Your task to perform on an android device: Open calendar and show me the fourth week of next month Image 0: 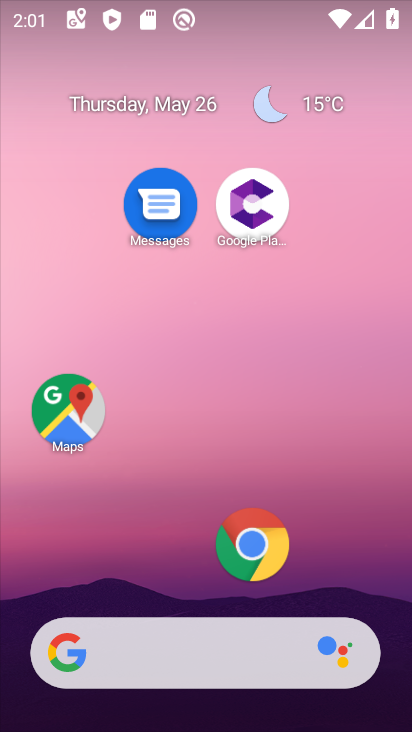
Step 0: click (119, 116)
Your task to perform on an android device: Open calendar and show me the fourth week of next month Image 1: 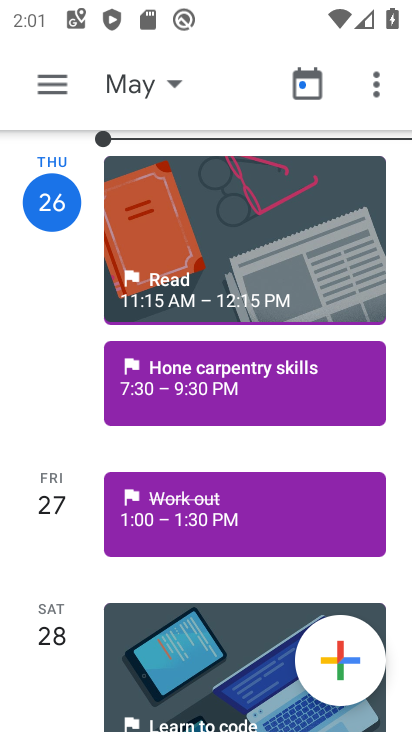
Step 1: click (133, 105)
Your task to perform on an android device: Open calendar and show me the fourth week of next month Image 2: 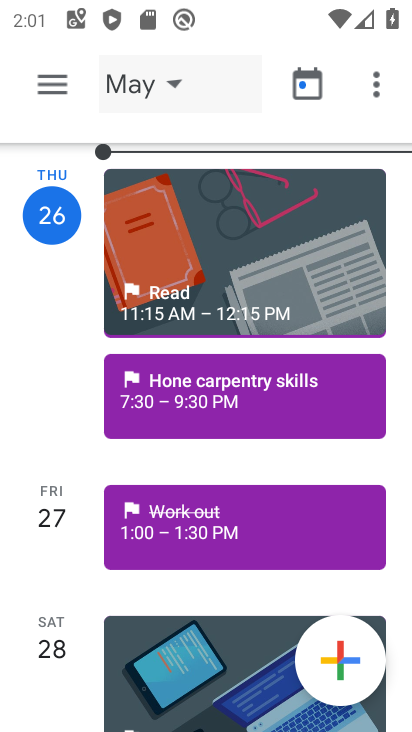
Step 2: click (145, 81)
Your task to perform on an android device: Open calendar and show me the fourth week of next month Image 3: 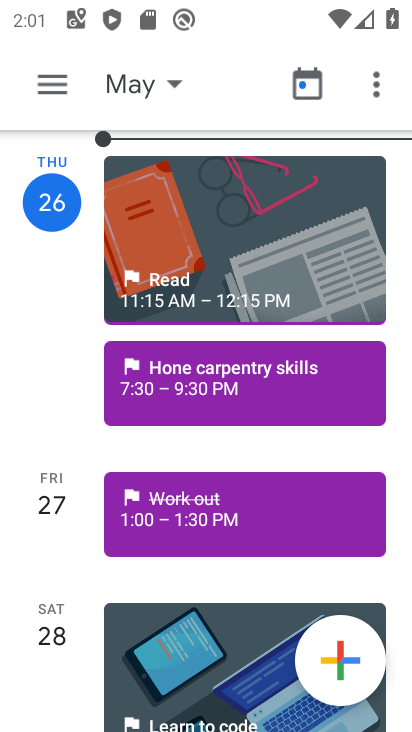
Step 3: click (131, 76)
Your task to perform on an android device: Open calendar and show me the fourth week of next month Image 4: 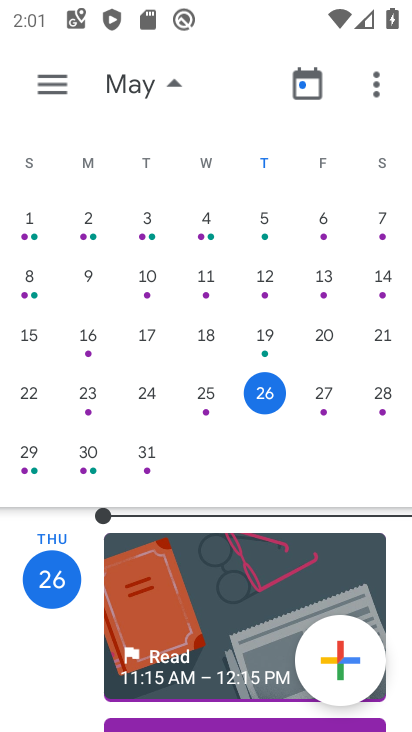
Step 4: drag from (367, 423) to (80, 418)
Your task to perform on an android device: Open calendar and show me the fourth week of next month Image 5: 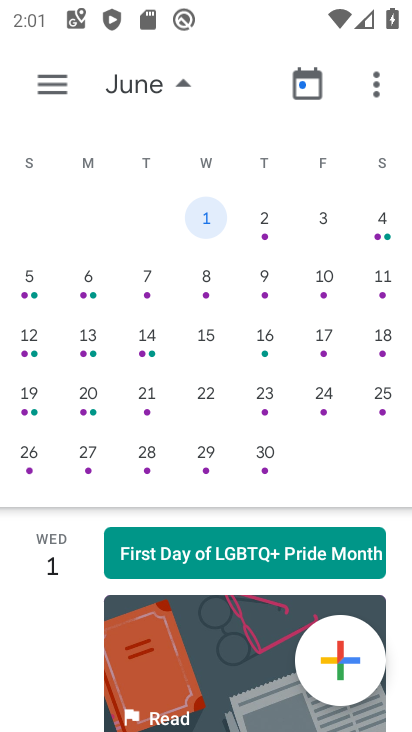
Step 5: click (199, 392)
Your task to perform on an android device: Open calendar and show me the fourth week of next month Image 6: 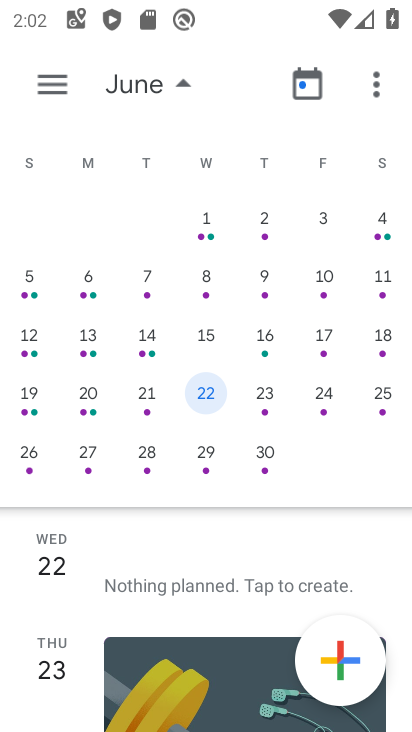
Step 6: task complete